Your task to perform on an android device: Set the phone to "Do not disturb". Image 0: 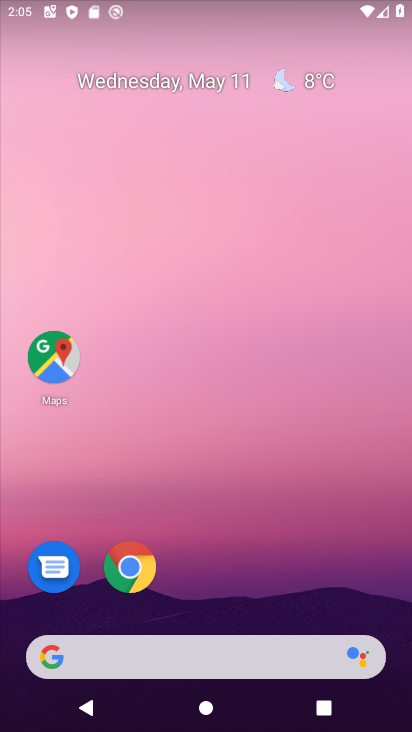
Step 0: drag from (380, 5) to (341, 361)
Your task to perform on an android device: Set the phone to "Do not disturb". Image 1: 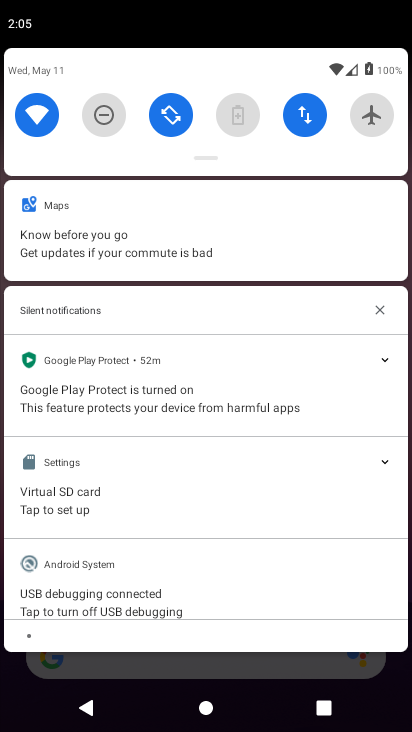
Step 1: click (97, 113)
Your task to perform on an android device: Set the phone to "Do not disturb". Image 2: 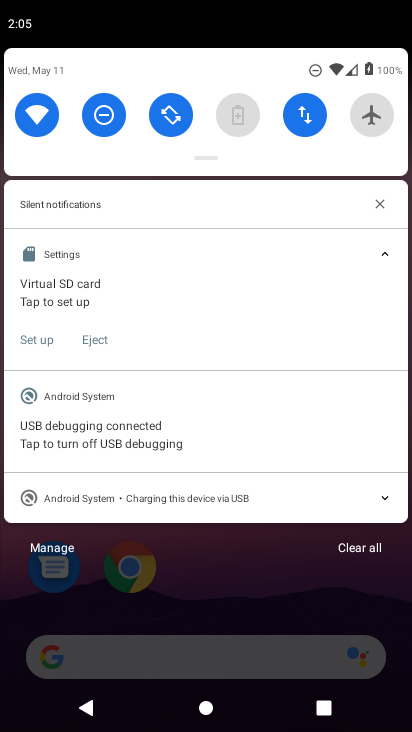
Step 2: task complete